Your task to perform on an android device: Open Google Chrome and click the shortcut for Amazon.com Image 0: 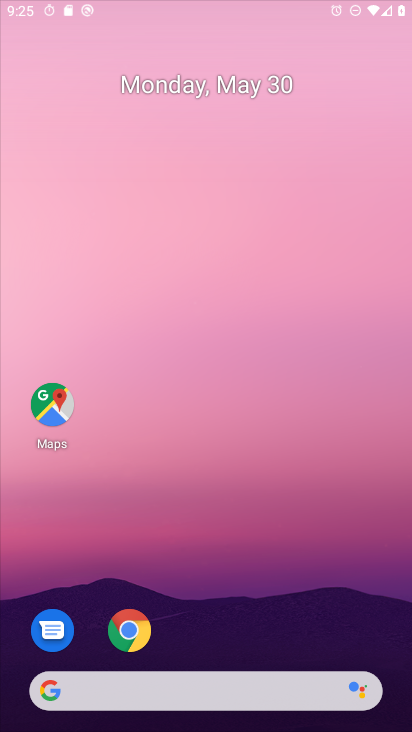
Step 0: drag from (375, 657) to (287, 211)
Your task to perform on an android device: Open Google Chrome and click the shortcut for Amazon.com Image 1: 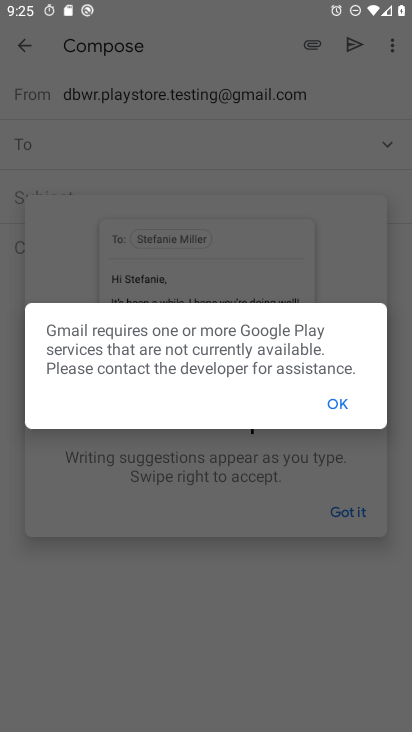
Step 1: press home button
Your task to perform on an android device: Open Google Chrome and click the shortcut for Amazon.com Image 2: 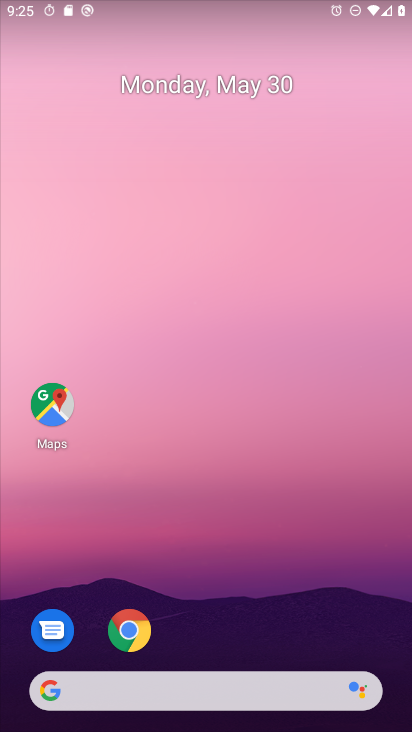
Step 2: drag from (330, 630) to (227, 25)
Your task to perform on an android device: Open Google Chrome and click the shortcut for Amazon.com Image 3: 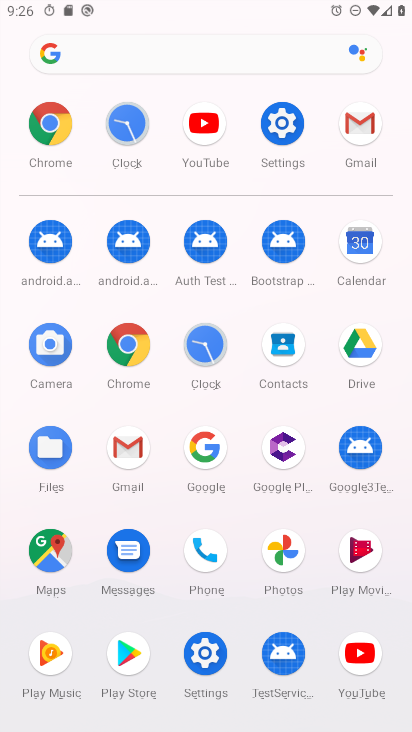
Step 3: click (238, 189)
Your task to perform on an android device: Open Google Chrome and click the shortcut for Amazon.com Image 4: 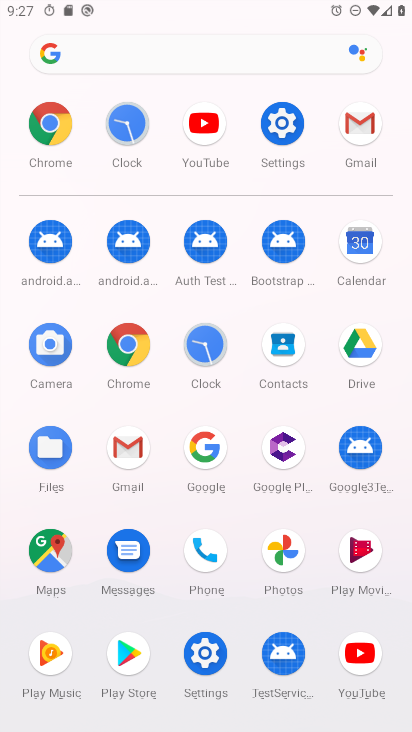
Step 4: click (137, 337)
Your task to perform on an android device: Open Google Chrome and click the shortcut for Amazon.com Image 5: 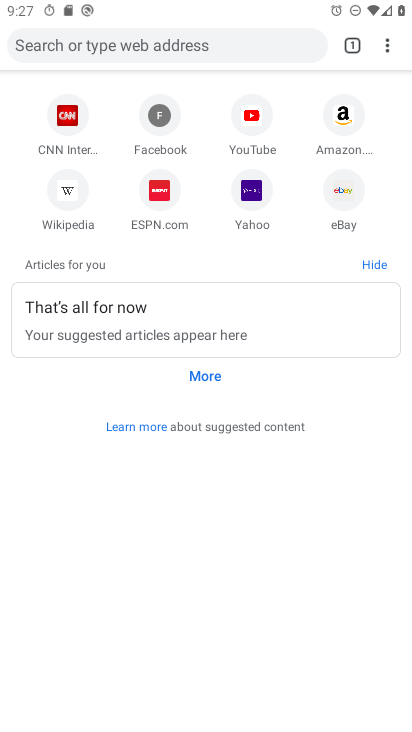
Step 5: click (341, 118)
Your task to perform on an android device: Open Google Chrome and click the shortcut for Amazon.com Image 6: 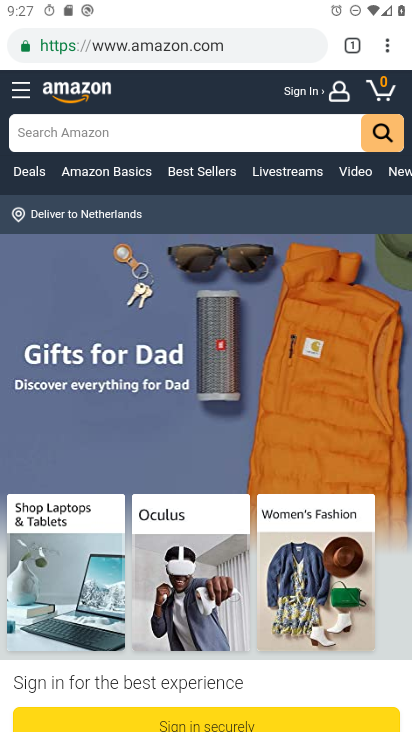
Step 6: task complete